Your task to perform on an android device: set the stopwatch Image 0: 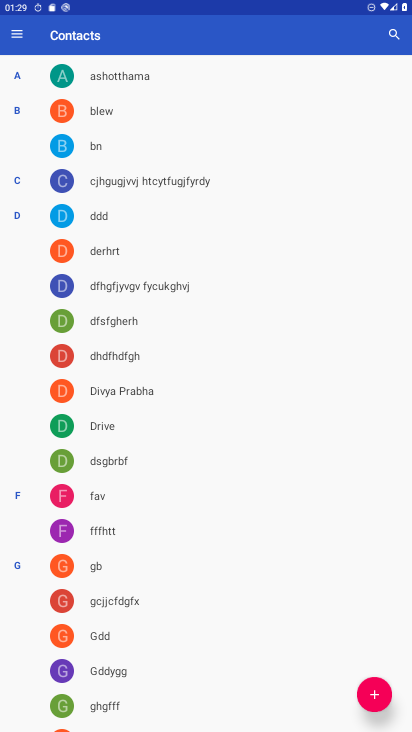
Step 0: press home button
Your task to perform on an android device: set the stopwatch Image 1: 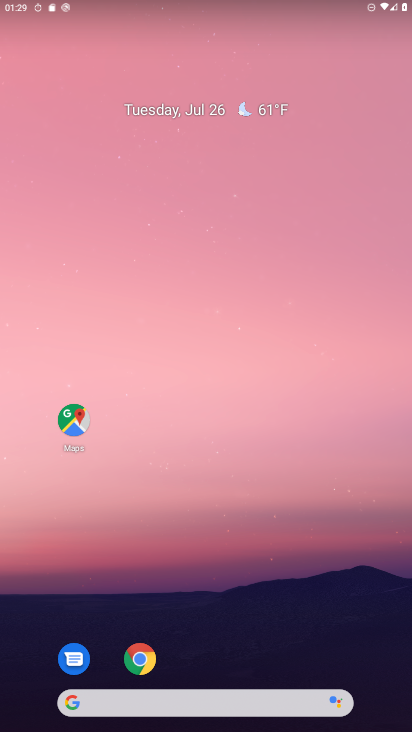
Step 1: drag from (6, 718) to (176, 256)
Your task to perform on an android device: set the stopwatch Image 2: 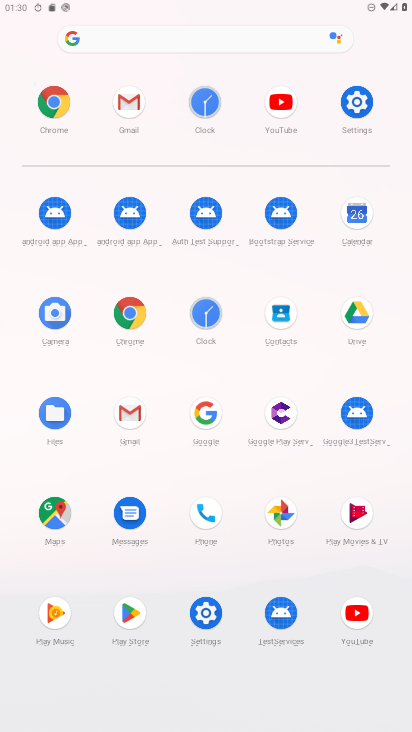
Step 2: click (208, 318)
Your task to perform on an android device: set the stopwatch Image 3: 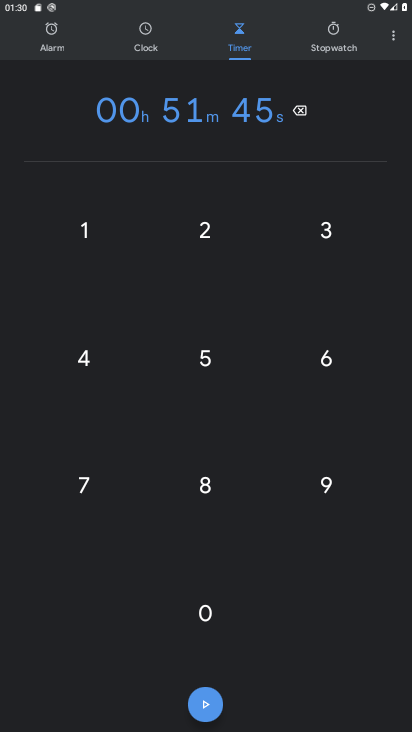
Step 3: click (328, 47)
Your task to perform on an android device: set the stopwatch Image 4: 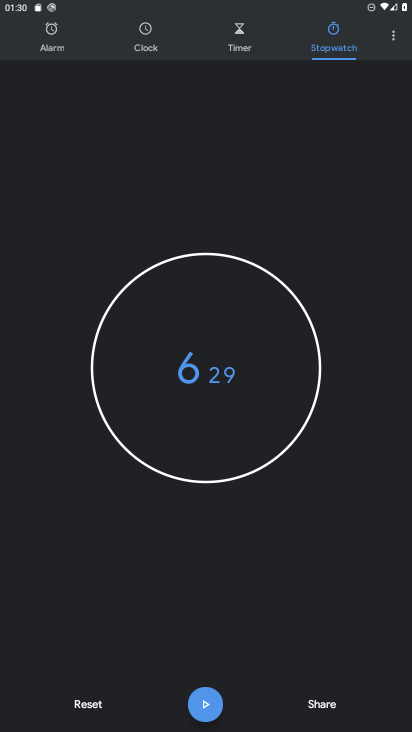
Step 4: task complete